Your task to perform on an android device: set the stopwatch Image 0: 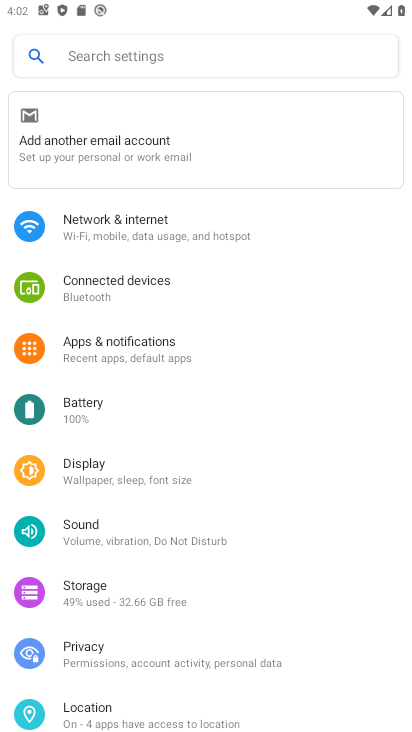
Step 0: press home button
Your task to perform on an android device: set the stopwatch Image 1: 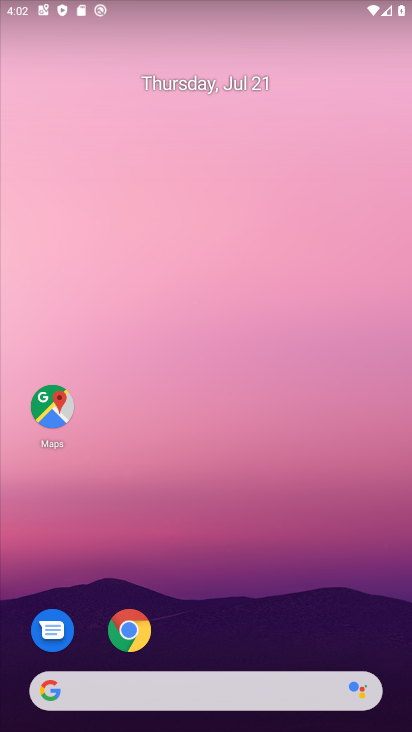
Step 1: drag from (168, 692) to (220, 225)
Your task to perform on an android device: set the stopwatch Image 2: 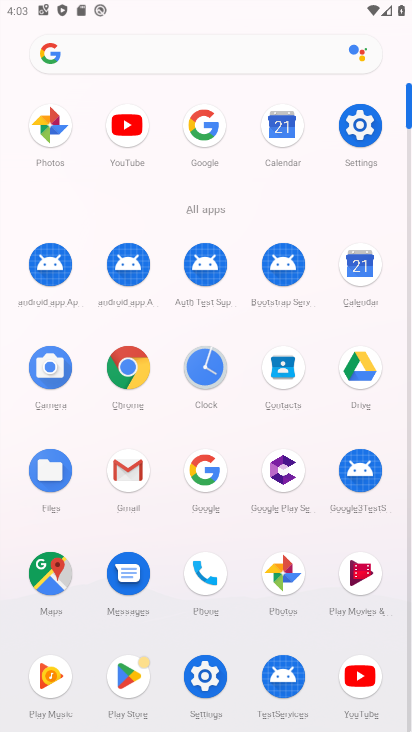
Step 2: click (204, 366)
Your task to perform on an android device: set the stopwatch Image 3: 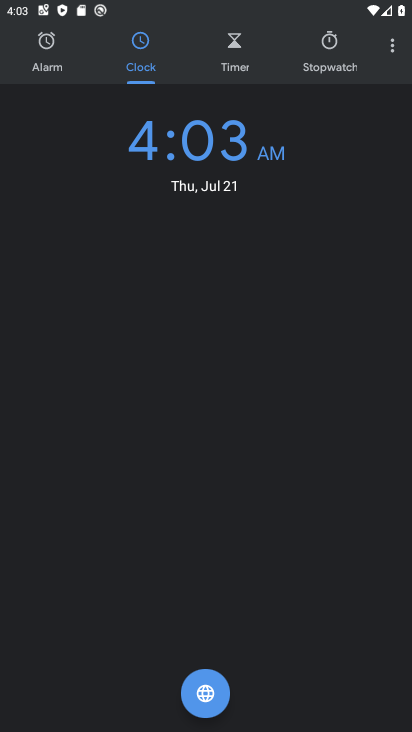
Step 3: click (332, 42)
Your task to perform on an android device: set the stopwatch Image 4: 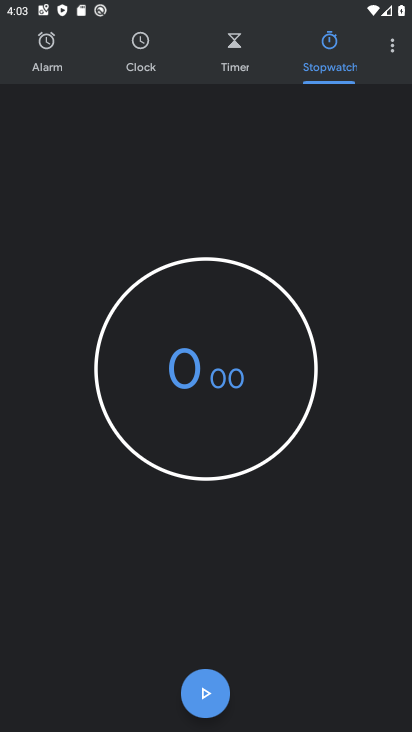
Step 4: click (205, 693)
Your task to perform on an android device: set the stopwatch Image 5: 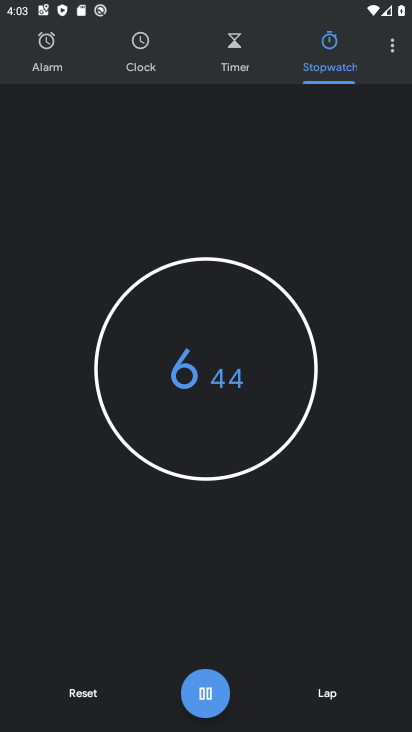
Step 5: click (205, 693)
Your task to perform on an android device: set the stopwatch Image 6: 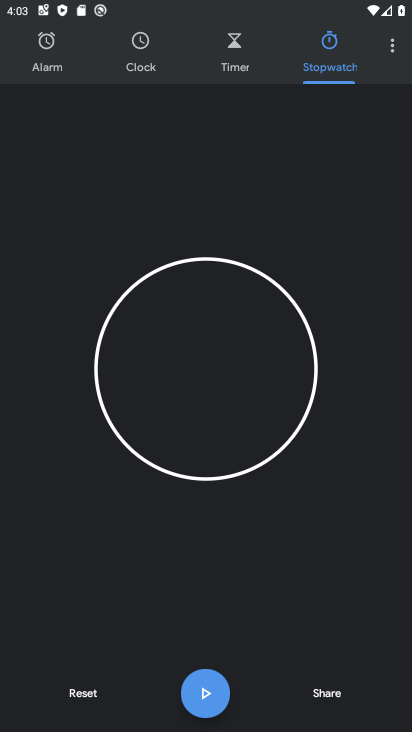
Step 6: task complete